Your task to perform on an android device: Show me popular videos on Youtube Image 0: 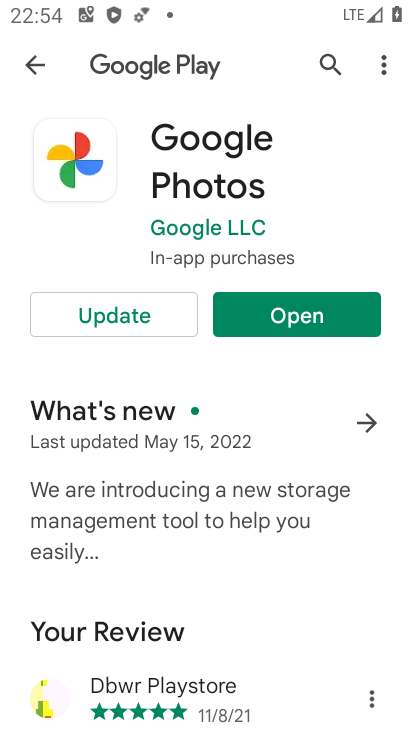
Step 0: press home button
Your task to perform on an android device: Show me popular videos on Youtube Image 1: 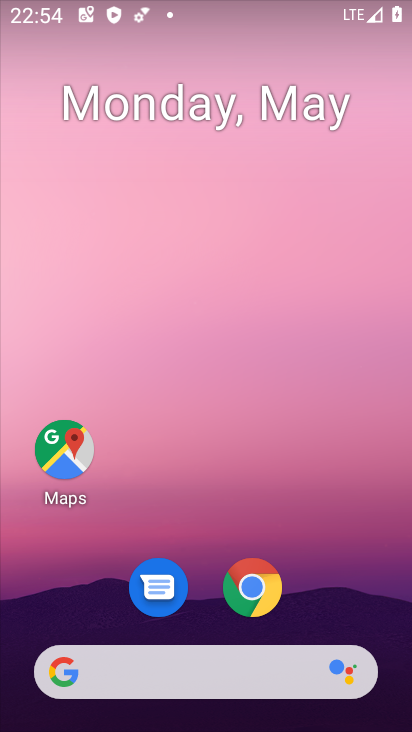
Step 1: drag from (198, 642) to (379, 405)
Your task to perform on an android device: Show me popular videos on Youtube Image 2: 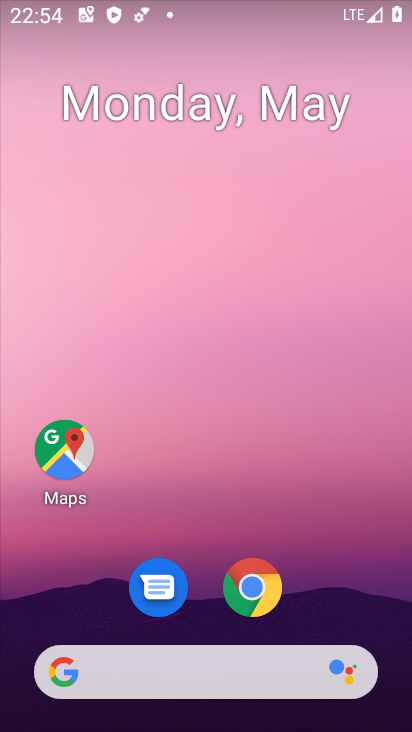
Step 2: drag from (184, 639) to (247, 30)
Your task to perform on an android device: Show me popular videos on Youtube Image 3: 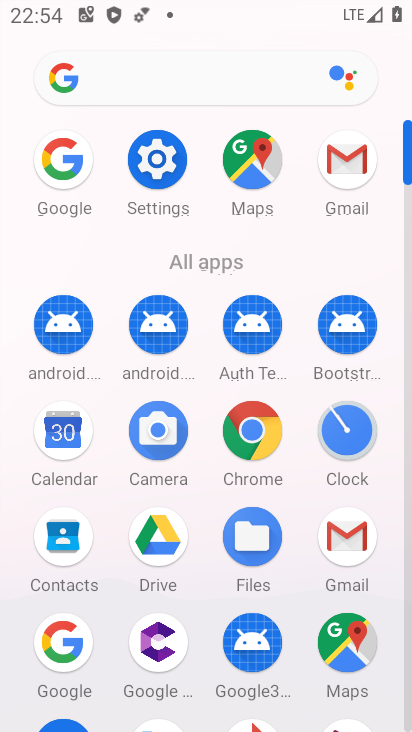
Step 3: drag from (194, 515) to (401, 715)
Your task to perform on an android device: Show me popular videos on Youtube Image 4: 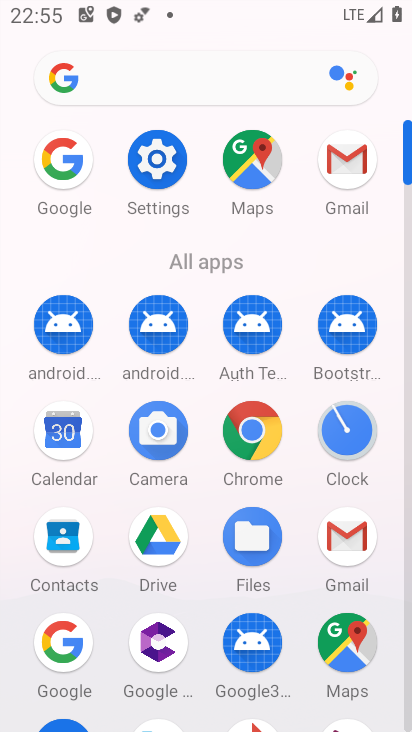
Step 4: drag from (74, 671) to (86, 81)
Your task to perform on an android device: Show me popular videos on Youtube Image 5: 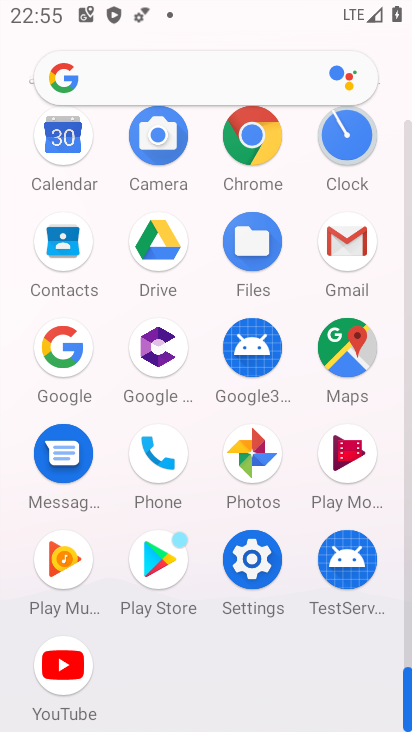
Step 5: click (48, 689)
Your task to perform on an android device: Show me popular videos on Youtube Image 6: 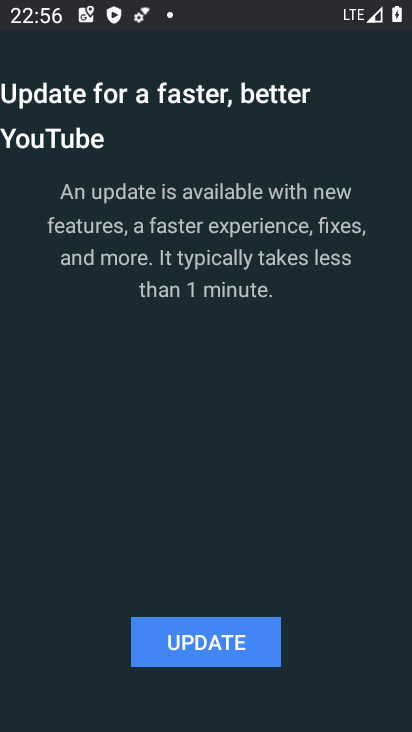
Step 6: click (208, 631)
Your task to perform on an android device: Show me popular videos on Youtube Image 7: 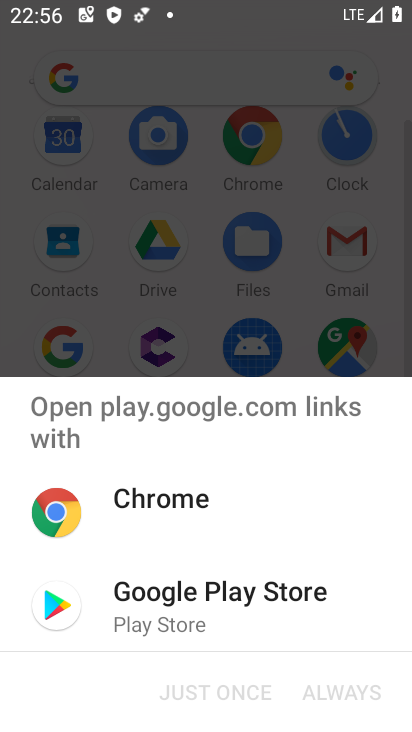
Step 7: click (187, 592)
Your task to perform on an android device: Show me popular videos on Youtube Image 8: 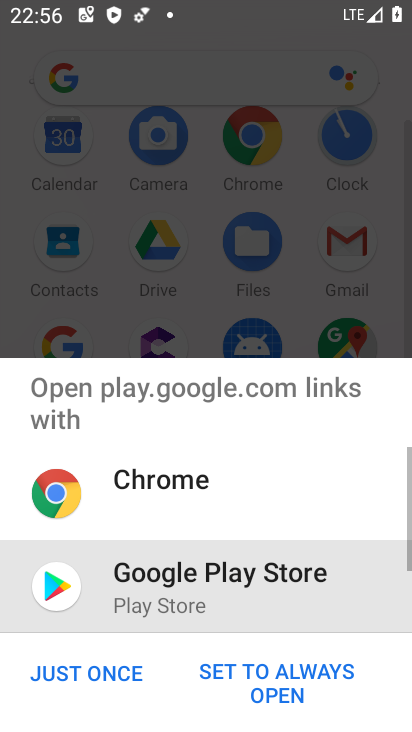
Step 8: click (117, 677)
Your task to perform on an android device: Show me popular videos on Youtube Image 9: 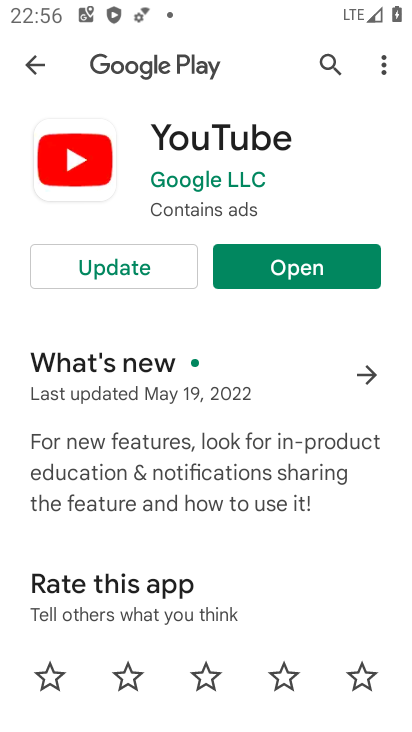
Step 9: click (93, 266)
Your task to perform on an android device: Show me popular videos on Youtube Image 10: 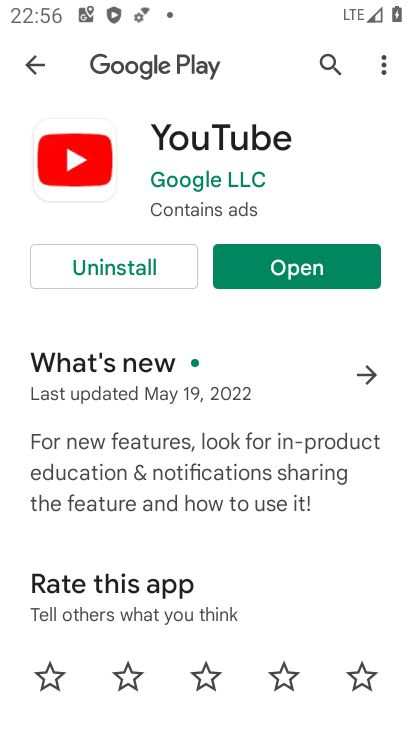
Step 10: click (297, 266)
Your task to perform on an android device: Show me popular videos on Youtube Image 11: 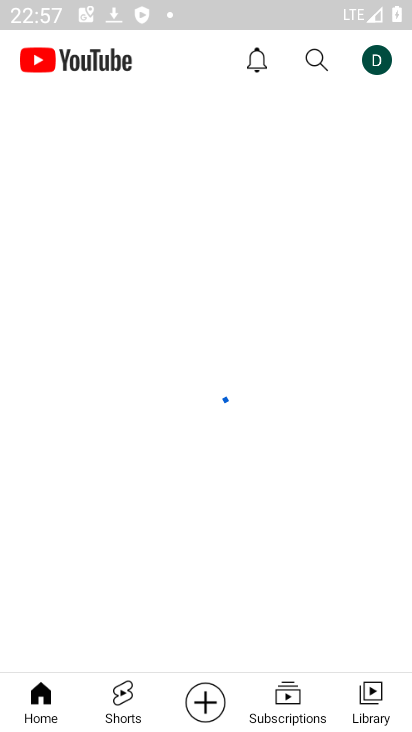
Step 11: task complete